Your task to perform on an android device: open device folders in google photos Image 0: 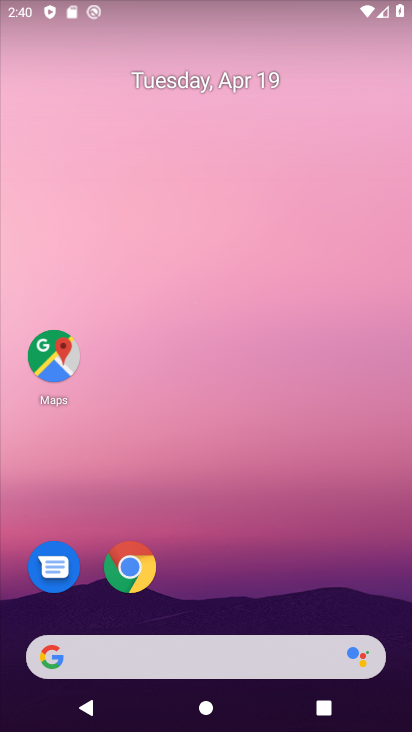
Step 0: drag from (284, 452) to (235, 72)
Your task to perform on an android device: open device folders in google photos Image 1: 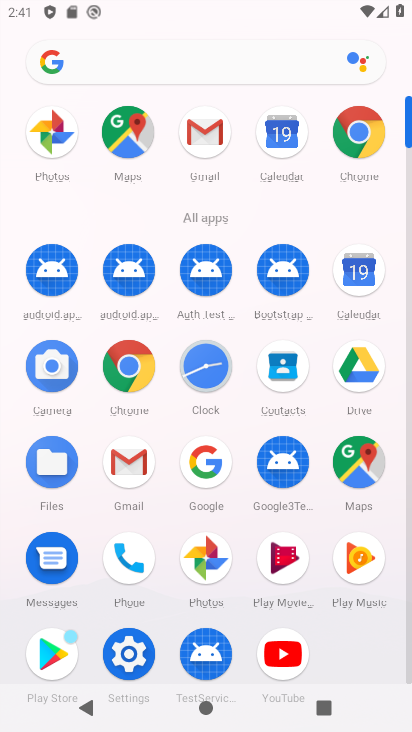
Step 1: click (60, 136)
Your task to perform on an android device: open device folders in google photos Image 2: 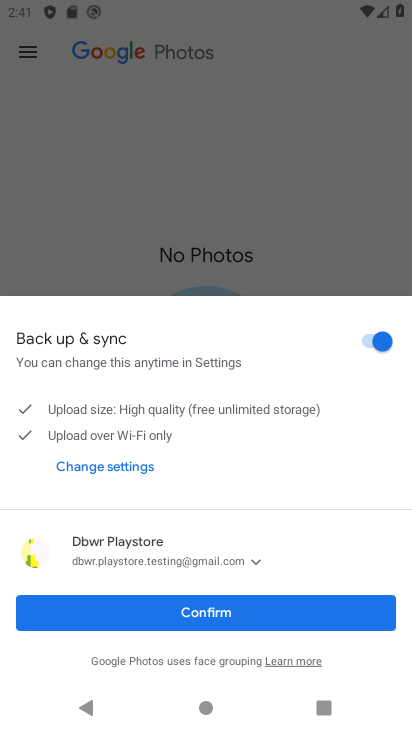
Step 2: click (209, 615)
Your task to perform on an android device: open device folders in google photos Image 3: 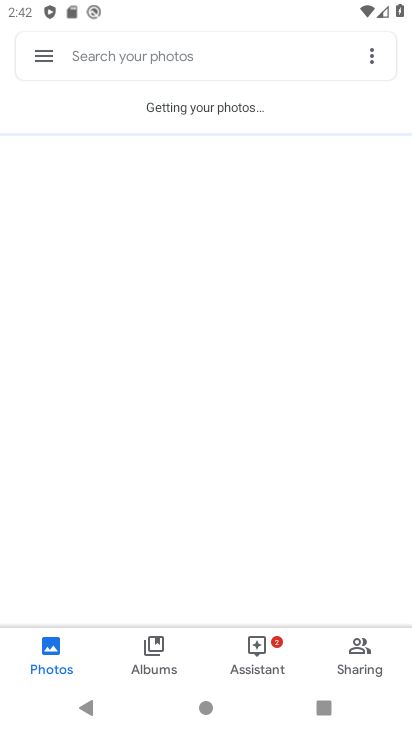
Step 3: click (29, 56)
Your task to perform on an android device: open device folders in google photos Image 4: 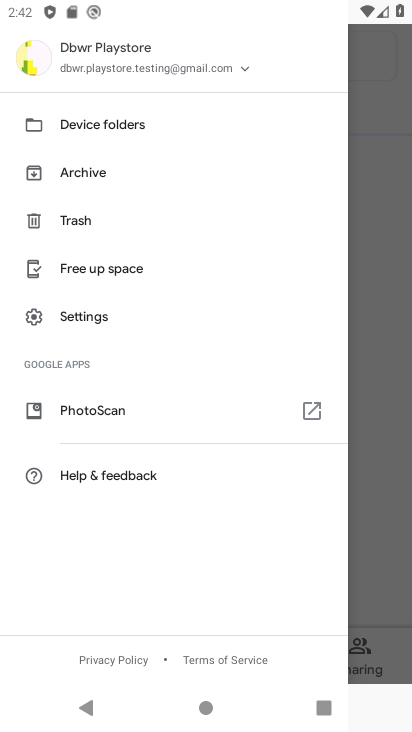
Step 4: click (91, 131)
Your task to perform on an android device: open device folders in google photos Image 5: 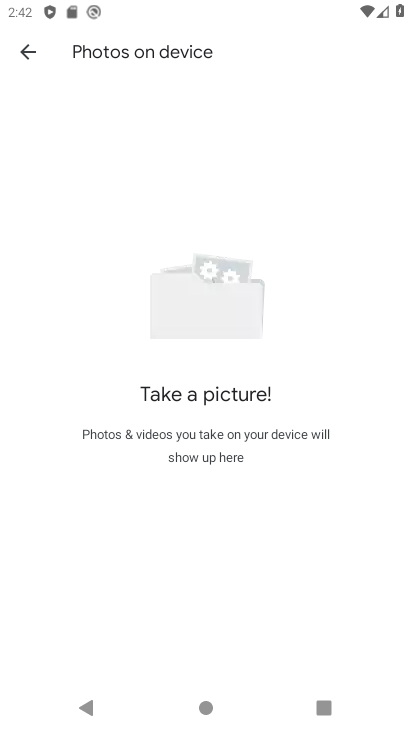
Step 5: click (304, 437)
Your task to perform on an android device: open device folders in google photos Image 6: 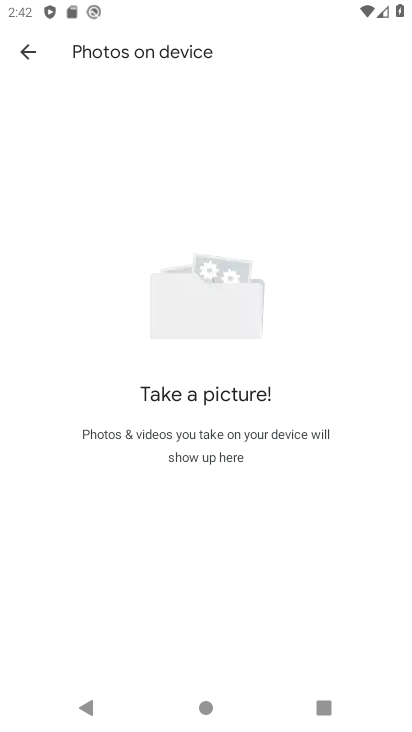
Step 6: task complete